Your task to perform on an android device: toggle notification dots Image 0: 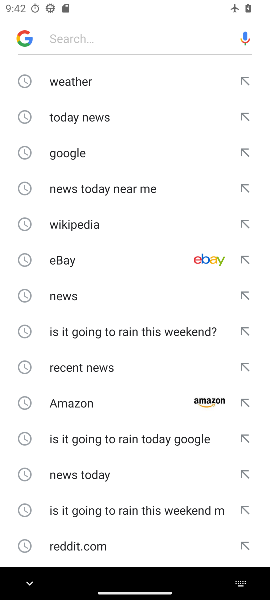
Step 0: press home button
Your task to perform on an android device: toggle notification dots Image 1: 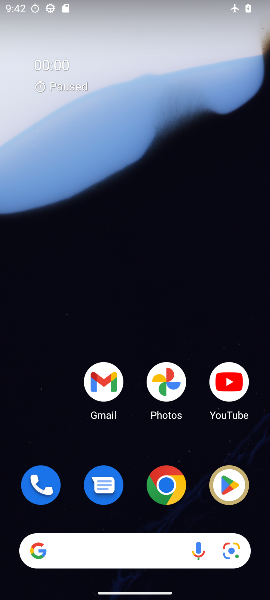
Step 1: drag from (192, 436) to (171, 6)
Your task to perform on an android device: toggle notification dots Image 2: 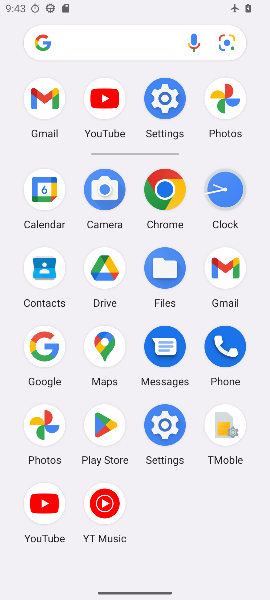
Step 2: click (169, 99)
Your task to perform on an android device: toggle notification dots Image 3: 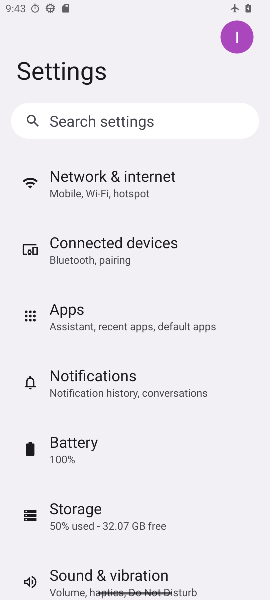
Step 3: drag from (174, 490) to (152, 287)
Your task to perform on an android device: toggle notification dots Image 4: 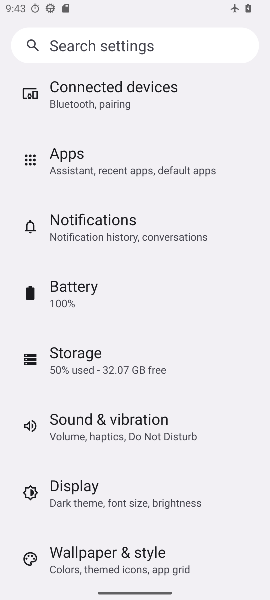
Step 4: click (120, 237)
Your task to perform on an android device: toggle notification dots Image 5: 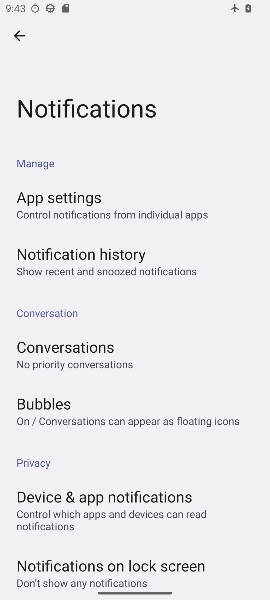
Step 5: drag from (190, 500) to (185, 208)
Your task to perform on an android device: toggle notification dots Image 6: 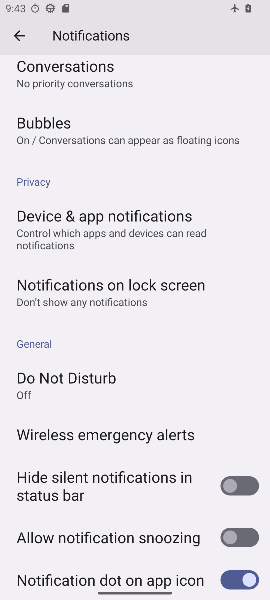
Step 6: drag from (215, 376) to (224, 167)
Your task to perform on an android device: toggle notification dots Image 7: 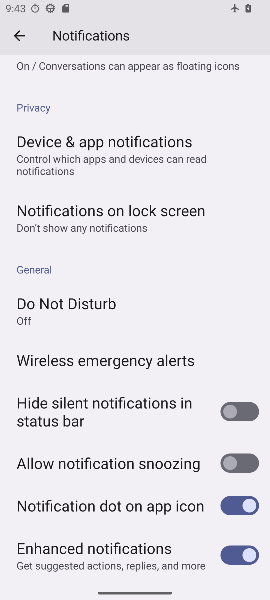
Step 7: drag from (206, 174) to (147, 453)
Your task to perform on an android device: toggle notification dots Image 8: 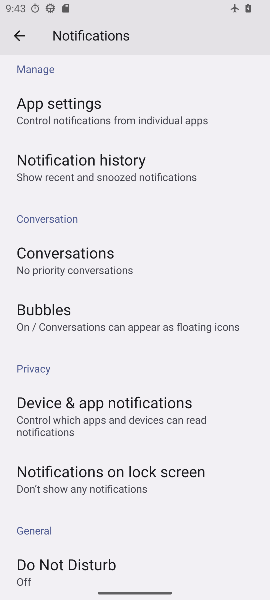
Step 8: click (143, 425)
Your task to perform on an android device: toggle notification dots Image 9: 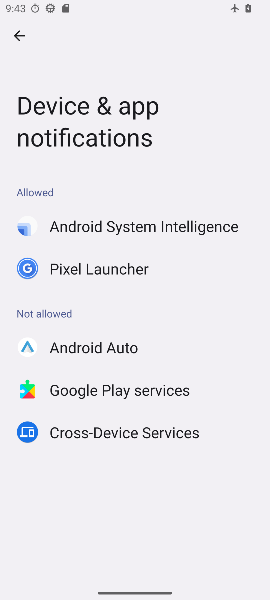
Step 9: click (20, 34)
Your task to perform on an android device: toggle notification dots Image 10: 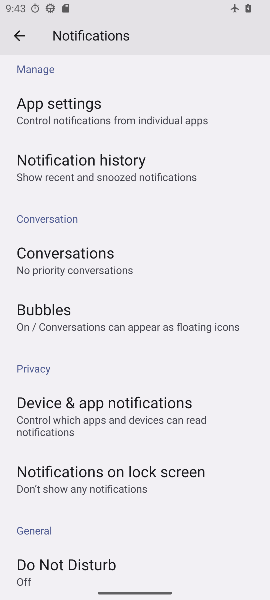
Step 10: drag from (205, 343) to (145, 9)
Your task to perform on an android device: toggle notification dots Image 11: 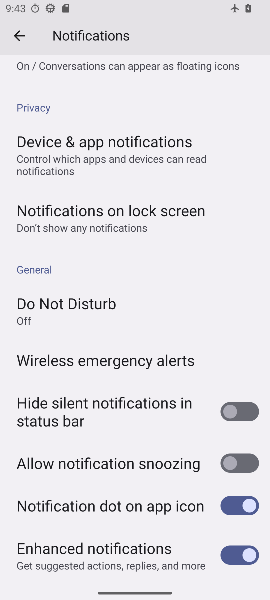
Step 11: click (243, 512)
Your task to perform on an android device: toggle notification dots Image 12: 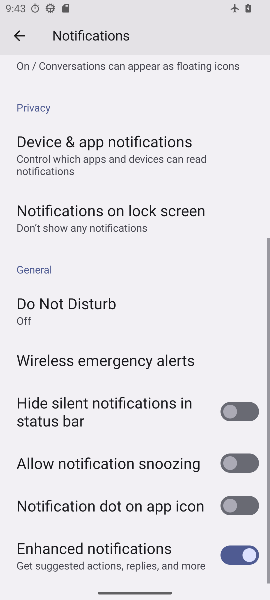
Step 12: task complete